Your task to perform on an android device: turn vacation reply on in the gmail app Image 0: 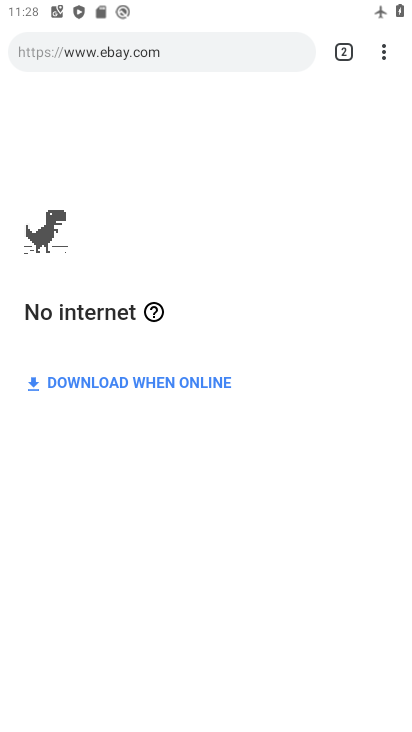
Step 0: press home button
Your task to perform on an android device: turn vacation reply on in the gmail app Image 1: 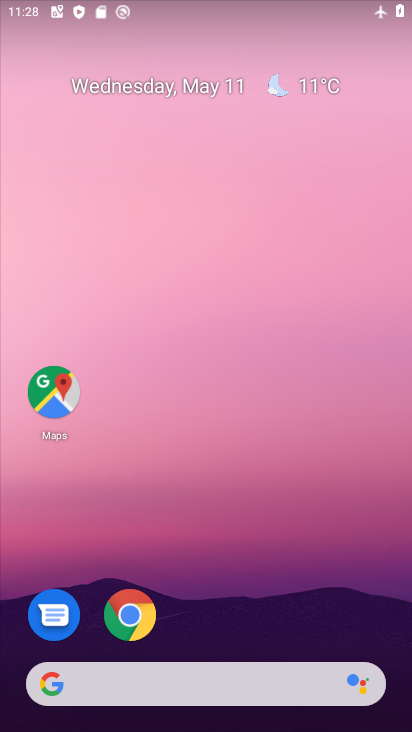
Step 1: drag from (222, 599) to (263, 99)
Your task to perform on an android device: turn vacation reply on in the gmail app Image 2: 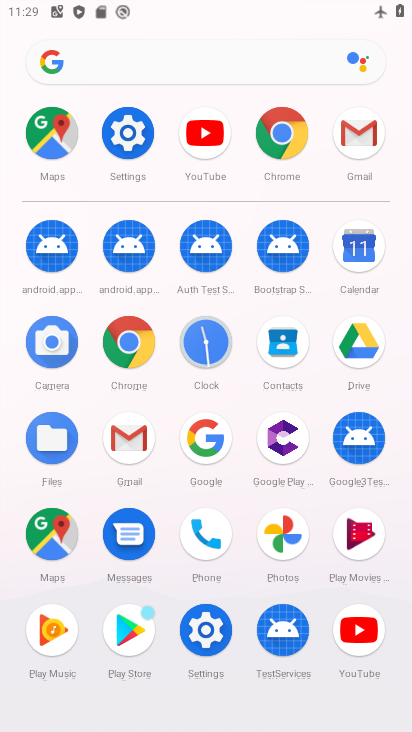
Step 2: click (360, 142)
Your task to perform on an android device: turn vacation reply on in the gmail app Image 3: 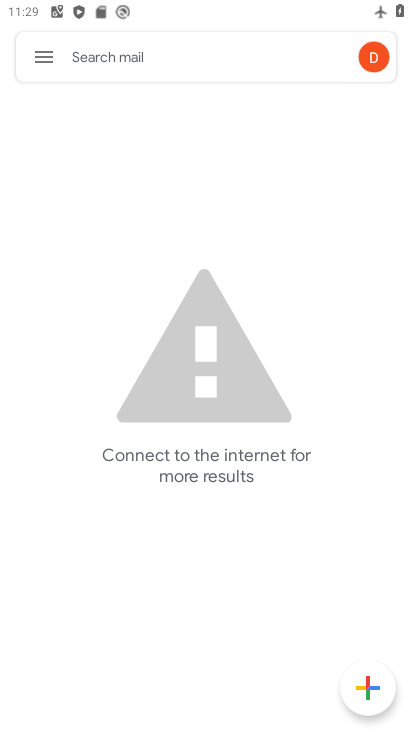
Step 3: click (44, 54)
Your task to perform on an android device: turn vacation reply on in the gmail app Image 4: 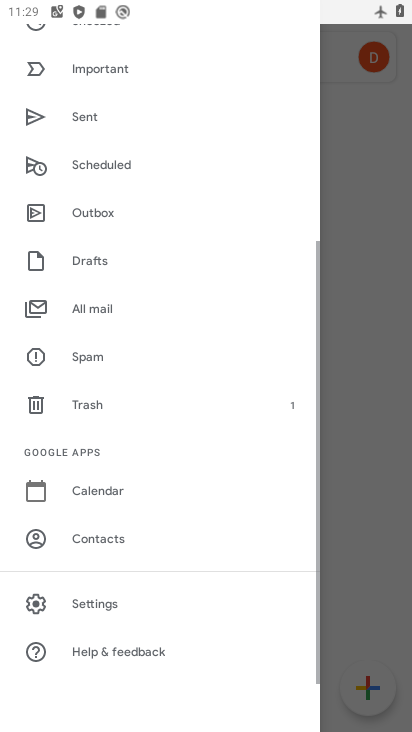
Step 4: click (126, 605)
Your task to perform on an android device: turn vacation reply on in the gmail app Image 5: 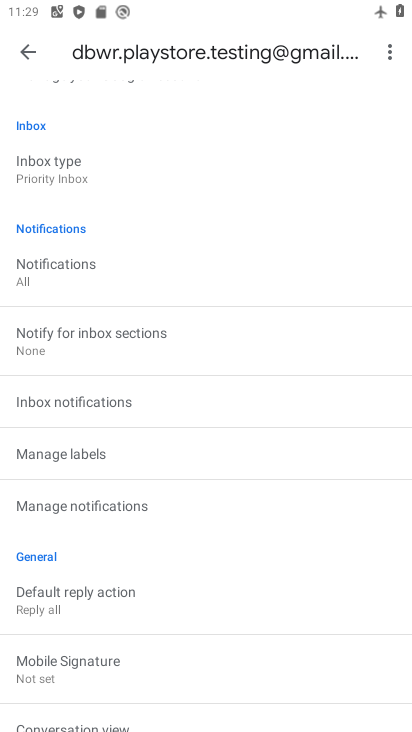
Step 5: drag from (161, 628) to (263, 151)
Your task to perform on an android device: turn vacation reply on in the gmail app Image 6: 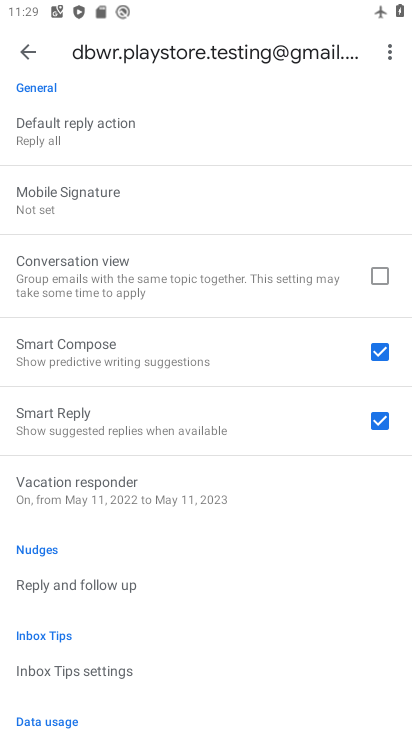
Step 6: click (167, 483)
Your task to perform on an android device: turn vacation reply on in the gmail app Image 7: 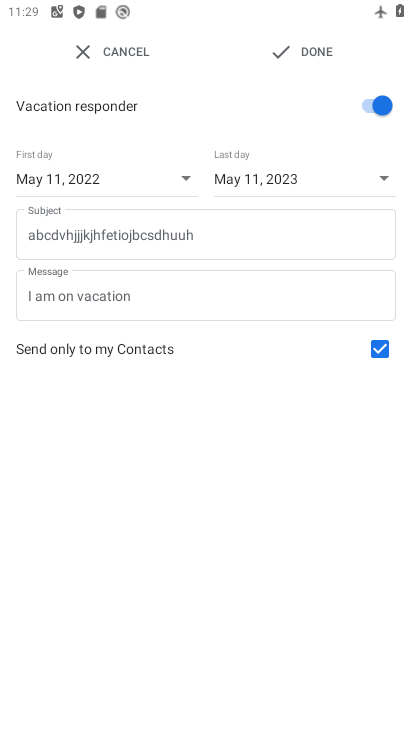
Step 7: task complete